Your task to perform on an android device: turn pop-ups on in chrome Image 0: 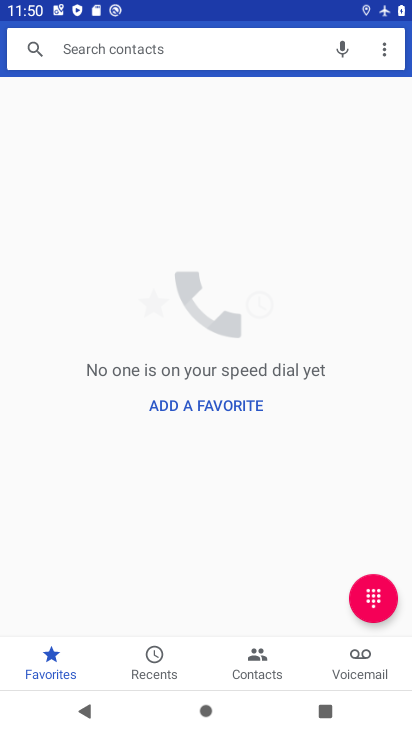
Step 0: press home button
Your task to perform on an android device: turn pop-ups on in chrome Image 1: 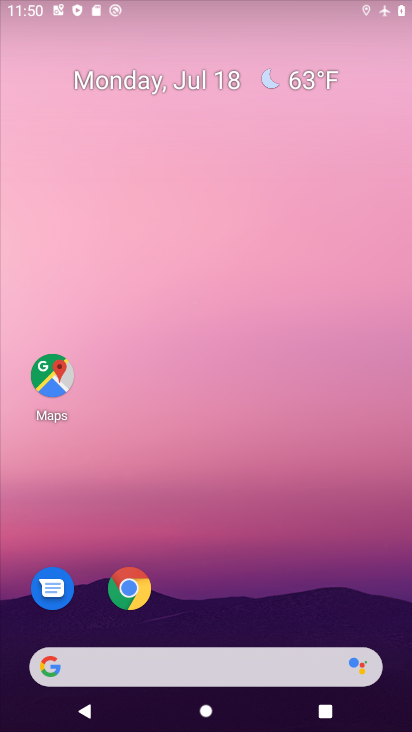
Step 1: drag from (292, 571) to (301, 0)
Your task to perform on an android device: turn pop-ups on in chrome Image 2: 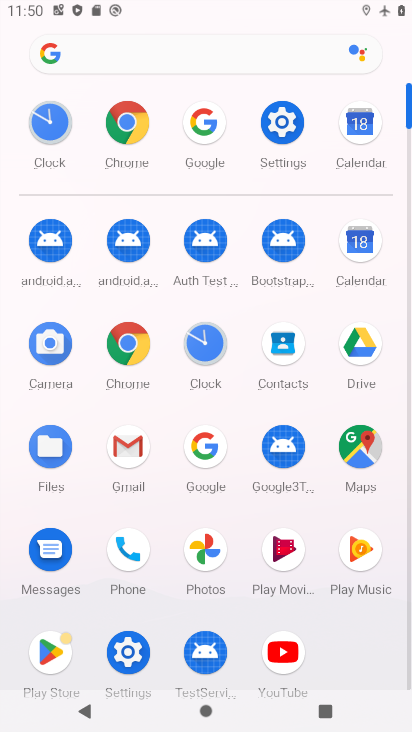
Step 2: click (130, 129)
Your task to perform on an android device: turn pop-ups on in chrome Image 3: 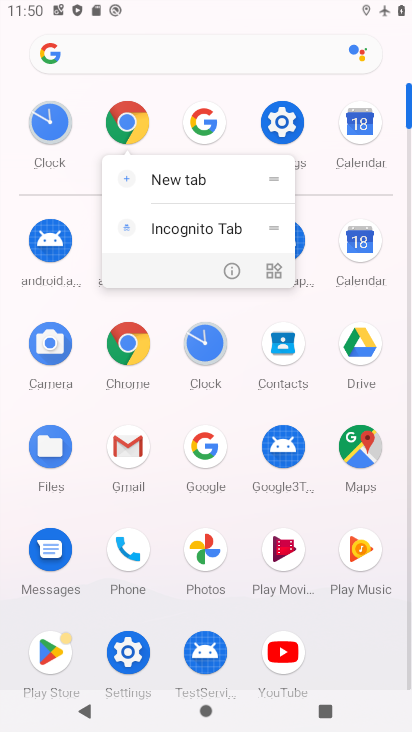
Step 3: click (130, 129)
Your task to perform on an android device: turn pop-ups on in chrome Image 4: 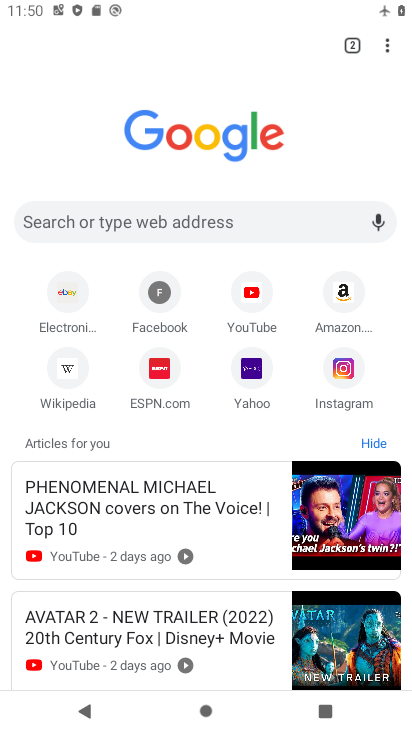
Step 4: drag from (388, 39) to (246, 390)
Your task to perform on an android device: turn pop-ups on in chrome Image 5: 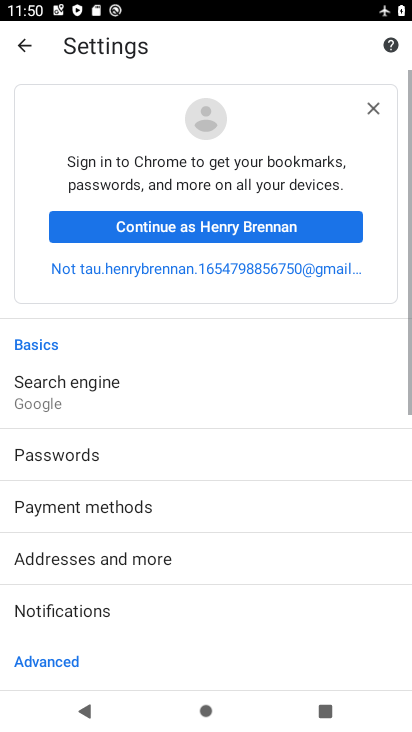
Step 5: drag from (94, 652) to (112, 143)
Your task to perform on an android device: turn pop-ups on in chrome Image 6: 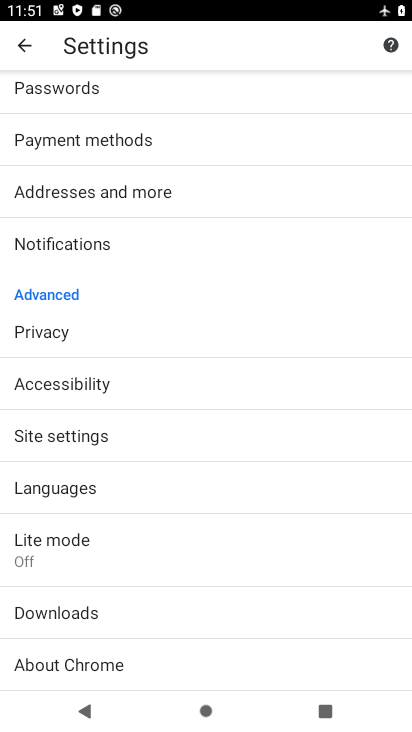
Step 6: click (34, 438)
Your task to perform on an android device: turn pop-ups on in chrome Image 7: 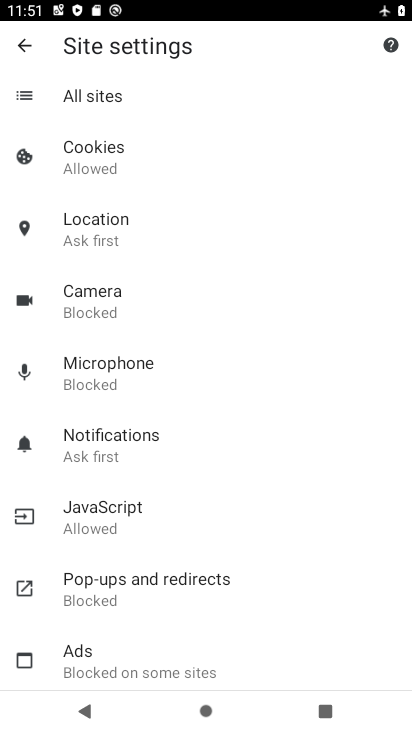
Step 7: click (154, 606)
Your task to perform on an android device: turn pop-ups on in chrome Image 8: 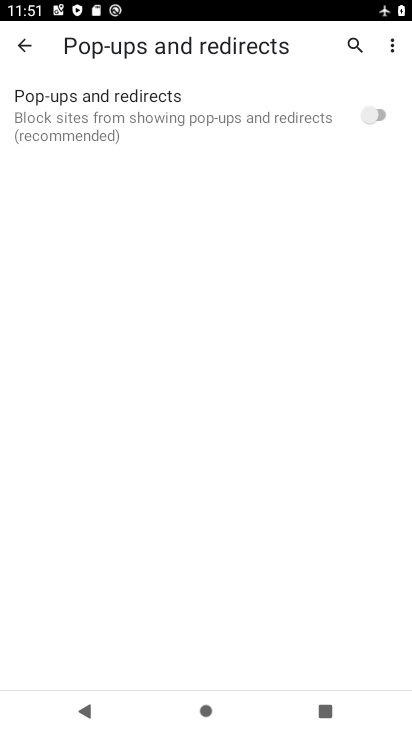
Step 8: click (368, 110)
Your task to perform on an android device: turn pop-ups on in chrome Image 9: 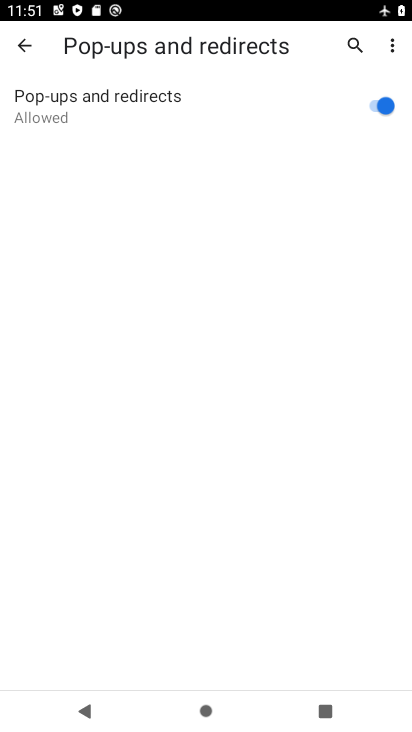
Step 9: task complete